Your task to perform on an android device: snooze an email in the gmail app Image 0: 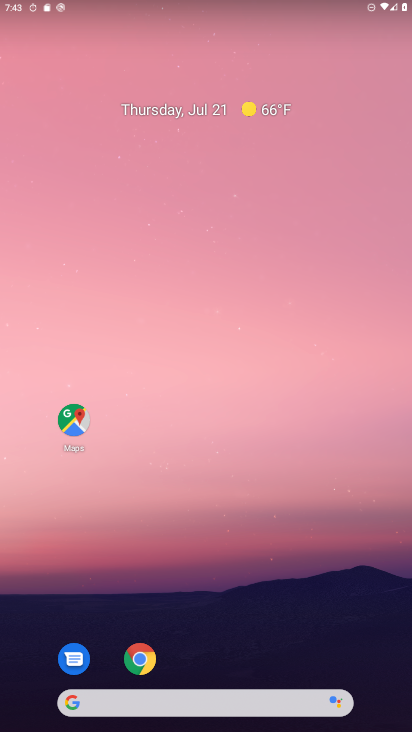
Step 0: drag from (187, 644) to (158, 14)
Your task to perform on an android device: snooze an email in the gmail app Image 1: 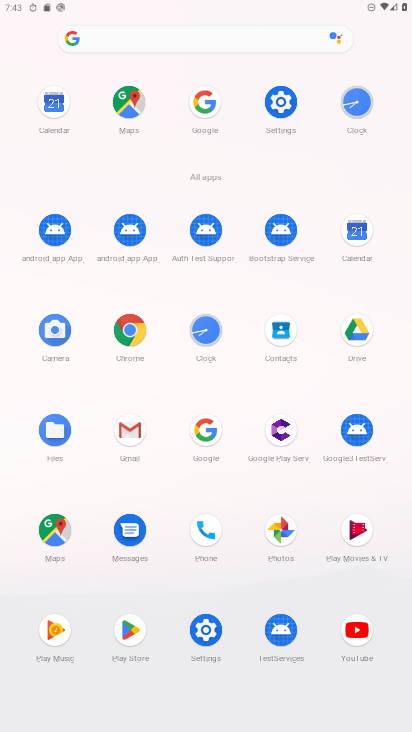
Step 1: click (130, 427)
Your task to perform on an android device: snooze an email in the gmail app Image 2: 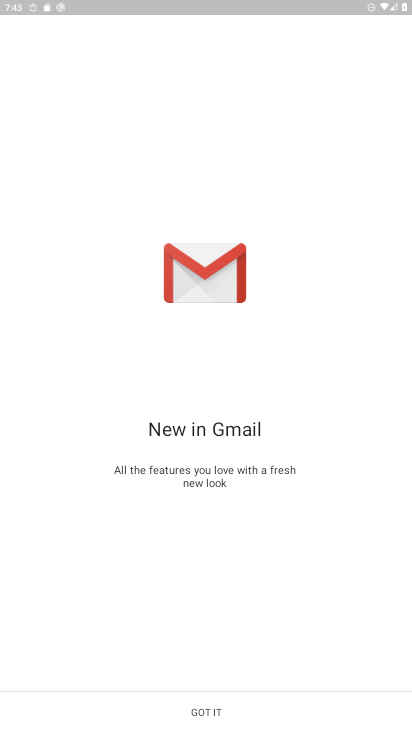
Step 2: click (209, 707)
Your task to perform on an android device: snooze an email in the gmail app Image 3: 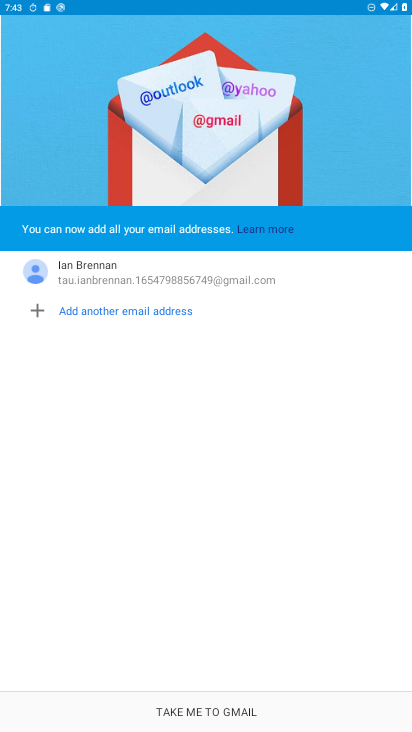
Step 3: click (192, 696)
Your task to perform on an android device: snooze an email in the gmail app Image 4: 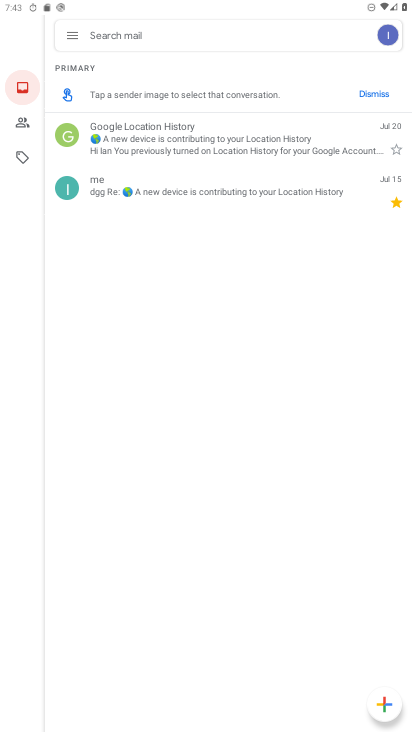
Step 4: task complete